Your task to perform on an android device: stop showing notifications on the lock screen Image 0: 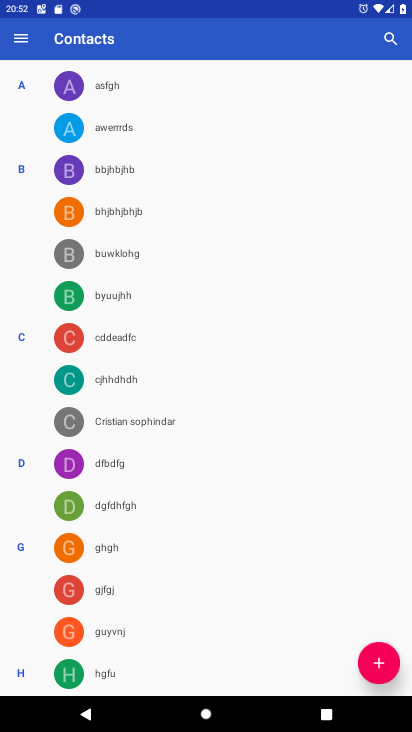
Step 0: press home button
Your task to perform on an android device: stop showing notifications on the lock screen Image 1: 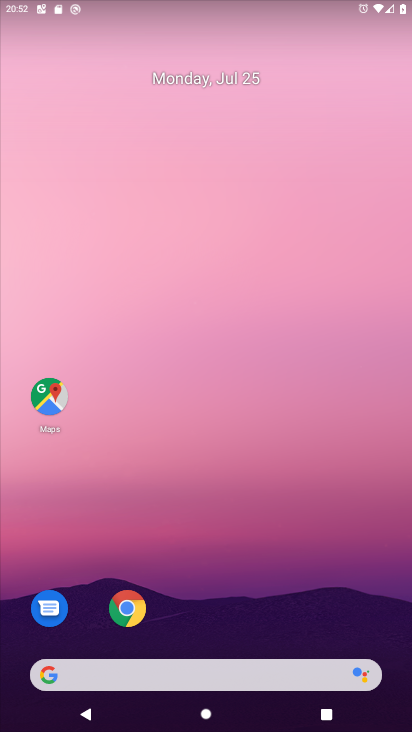
Step 1: drag from (291, 617) to (291, 103)
Your task to perform on an android device: stop showing notifications on the lock screen Image 2: 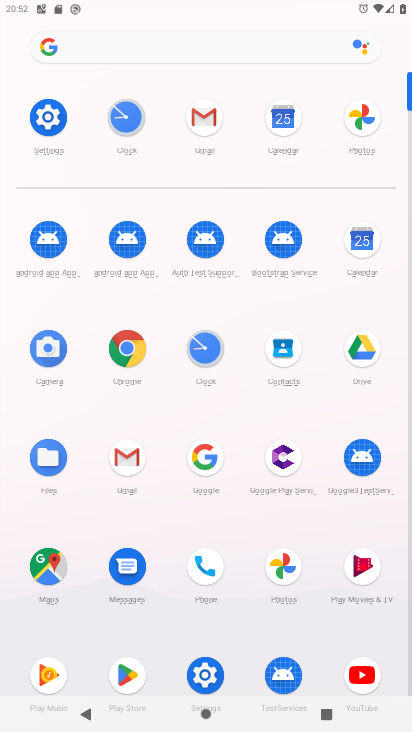
Step 2: click (51, 138)
Your task to perform on an android device: stop showing notifications on the lock screen Image 3: 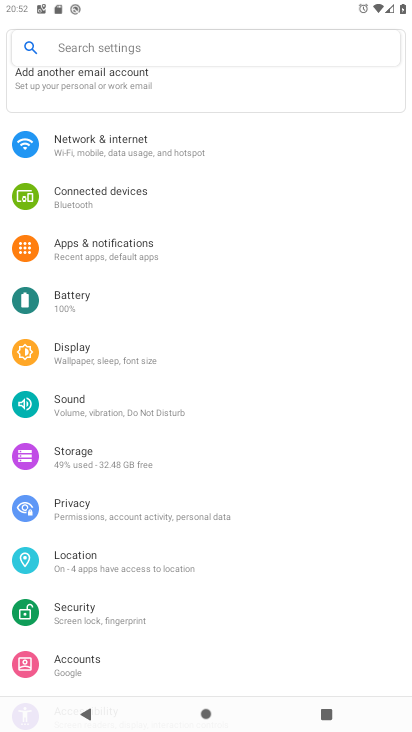
Step 3: click (105, 251)
Your task to perform on an android device: stop showing notifications on the lock screen Image 4: 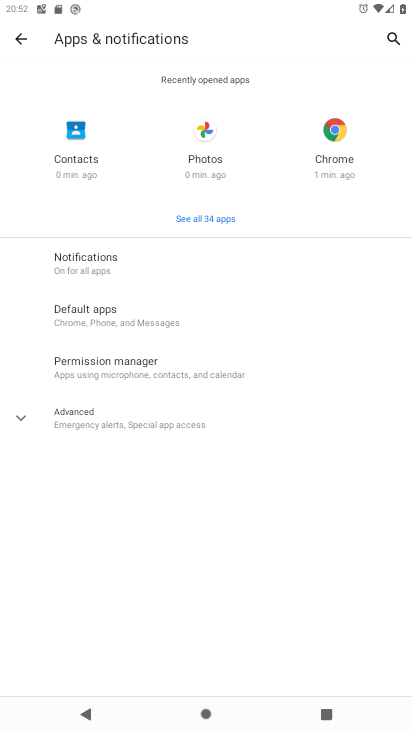
Step 4: click (138, 275)
Your task to perform on an android device: stop showing notifications on the lock screen Image 5: 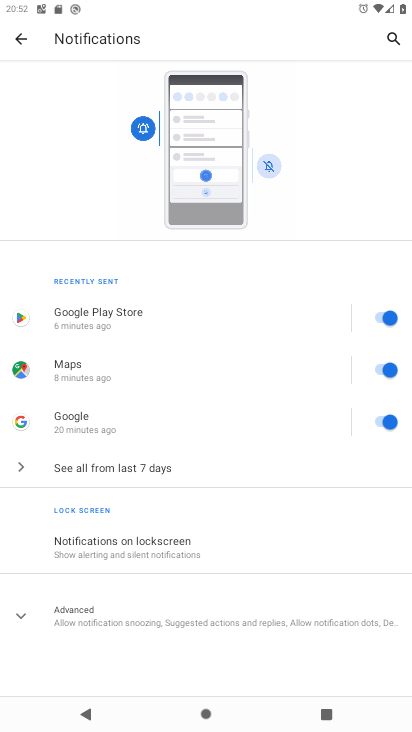
Step 5: click (85, 546)
Your task to perform on an android device: stop showing notifications on the lock screen Image 6: 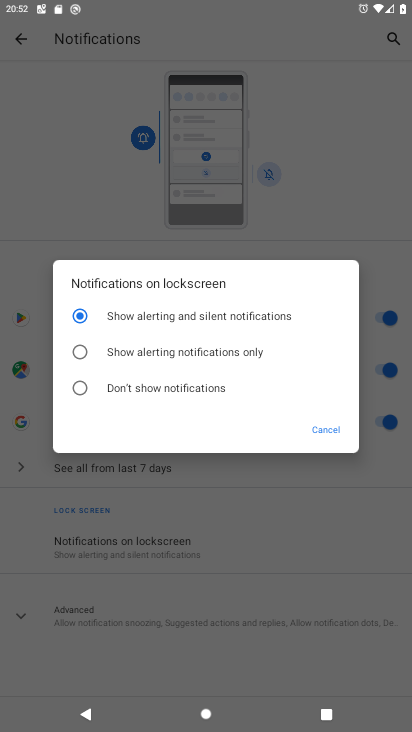
Step 6: click (156, 392)
Your task to perform on an android device: stop showing notifications on the lock screen Image 7: 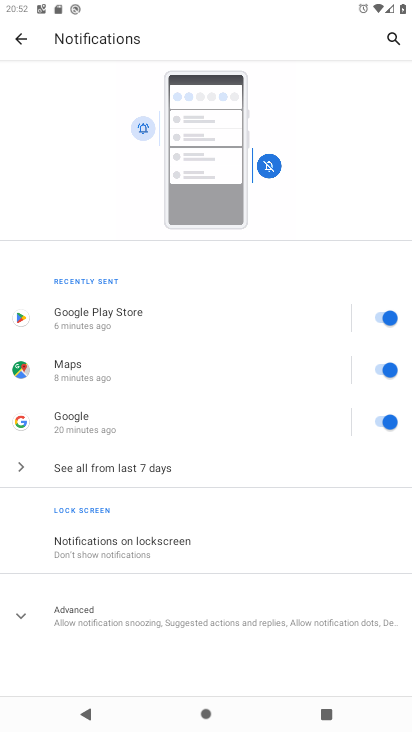
Step 7: task complete